Your task to perform on an android device: open app "Yahoo Mail" (install if not already installed) Image 0: 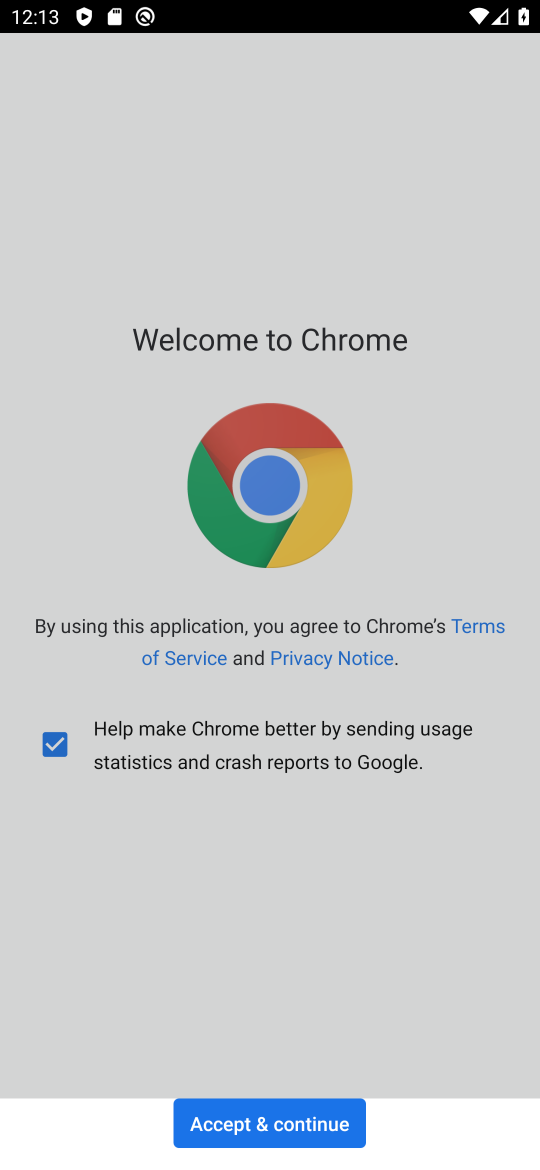
Step 0: press home button
Your task to perform on an android device: open app "Yahoo Mail" (install if not already installed) Image 1: 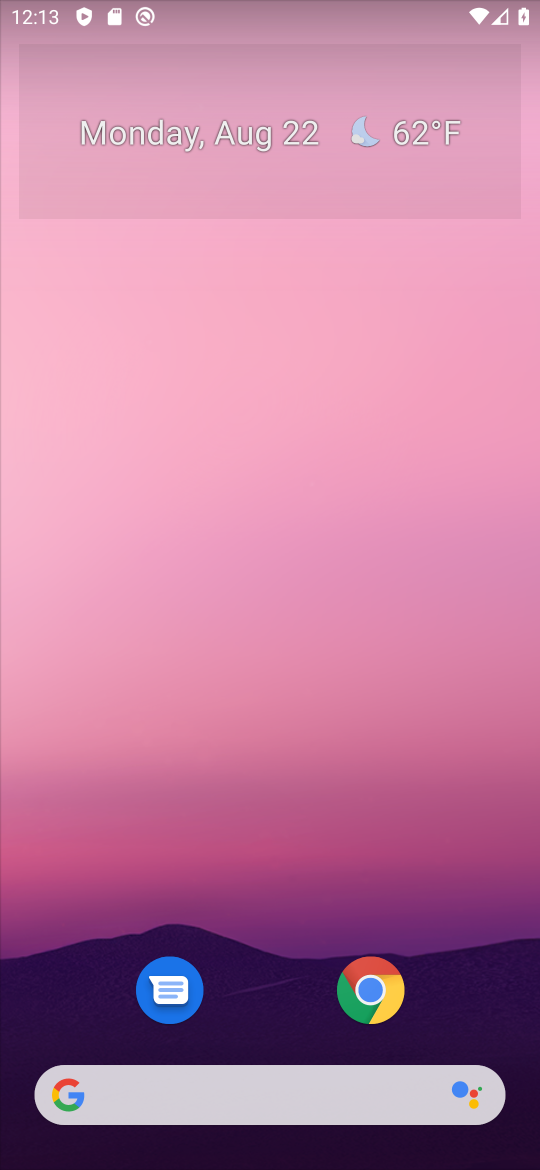
Step 1: drag from (295, 961) to (263, 183)
Your task to perform on an android device: open app "Yahoo Mail" (install if not already installed) Image 2: 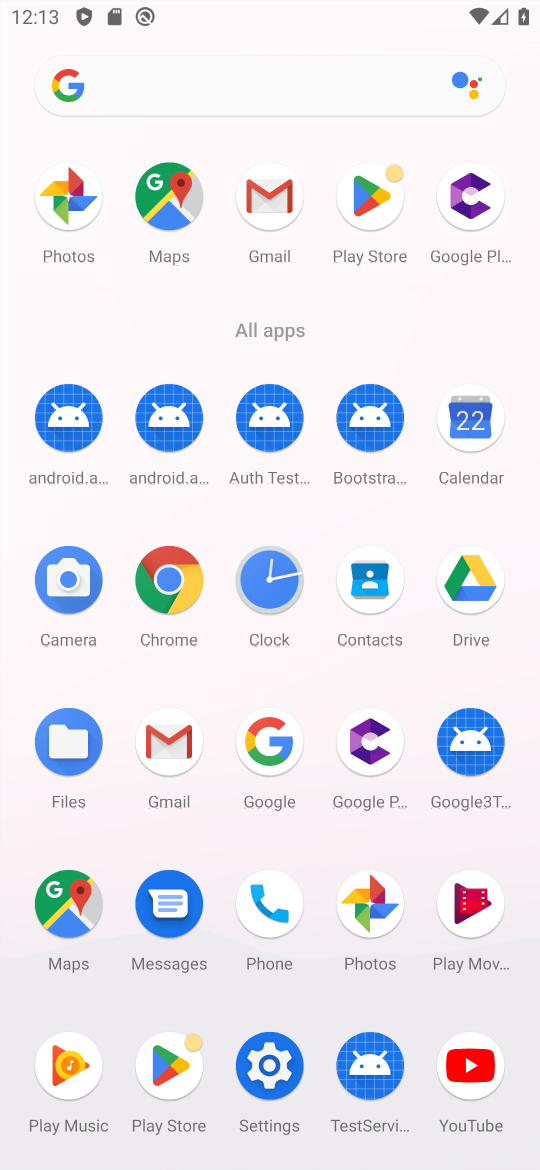
Step 2: click (339, 195)
Your task to perform on an android device: open app "Yahoo Mail" (install if not already installed) Image 3: 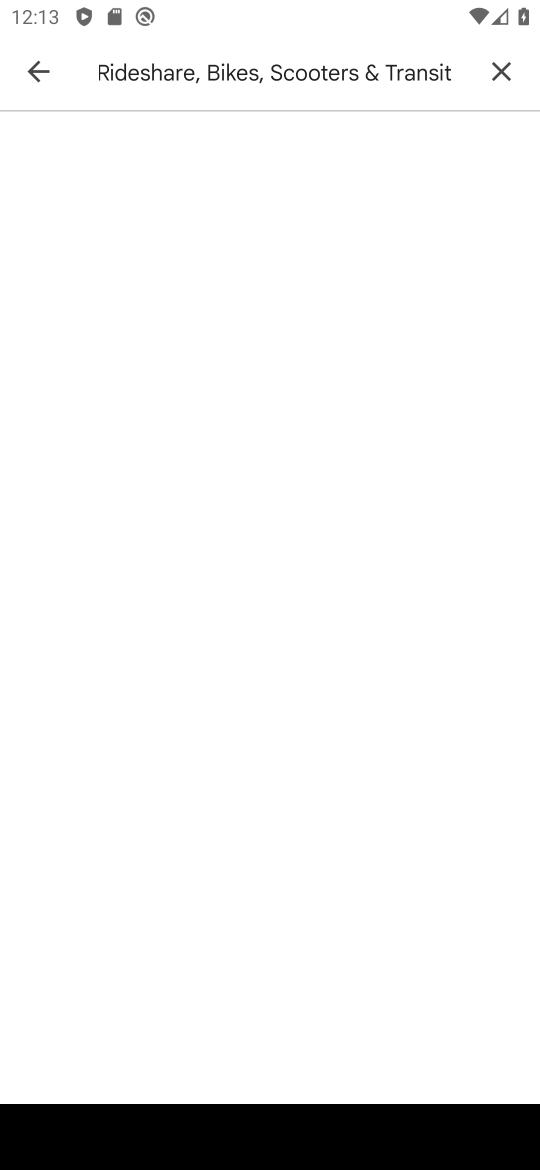
Step 3: click (504, 73)
Your task to perform on an android device: open app "Yahoo Mail" (install if not already installed) Image 4: 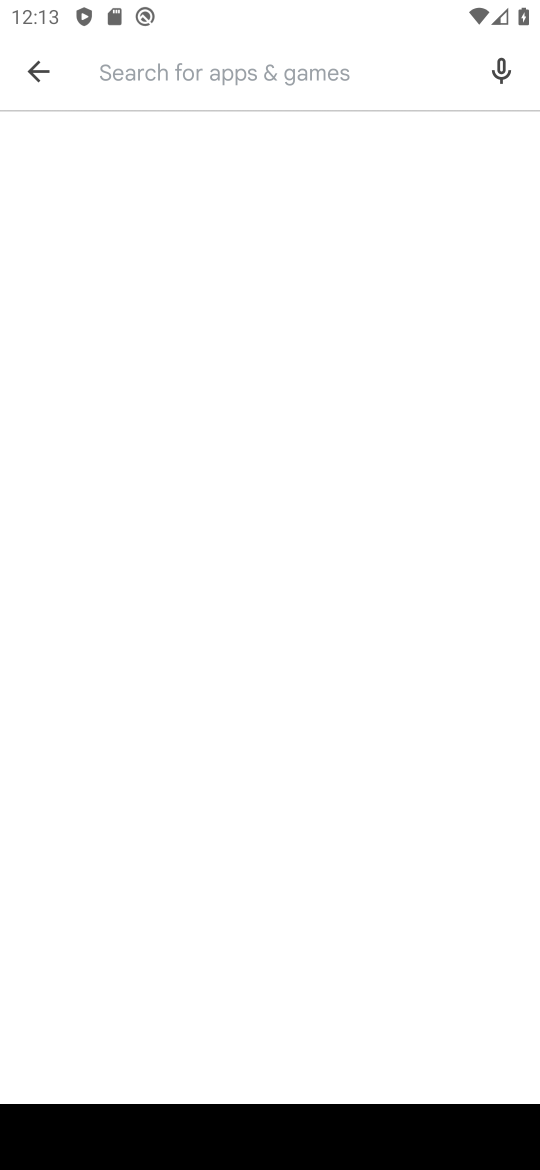
Step 4: click (44, 77)
Your task to perform on an android device: open app "Yahoo Mail" (install if not already installed) Image 5: 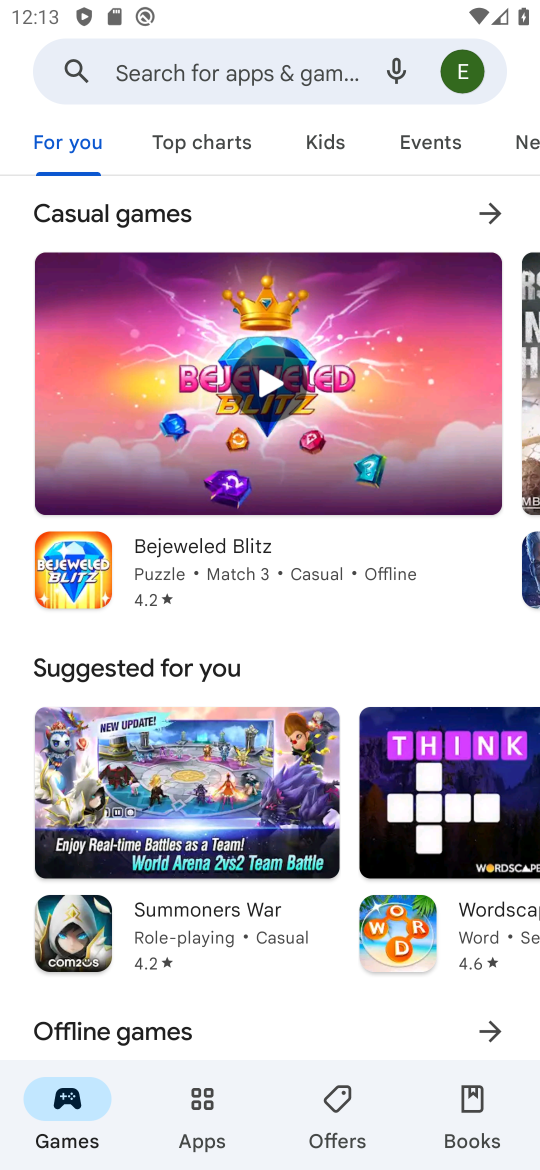
Step 5: click (174, 81)
Your task to perform on an android device: open app "Yahoo Mail" (install if not already installed) Image 6: 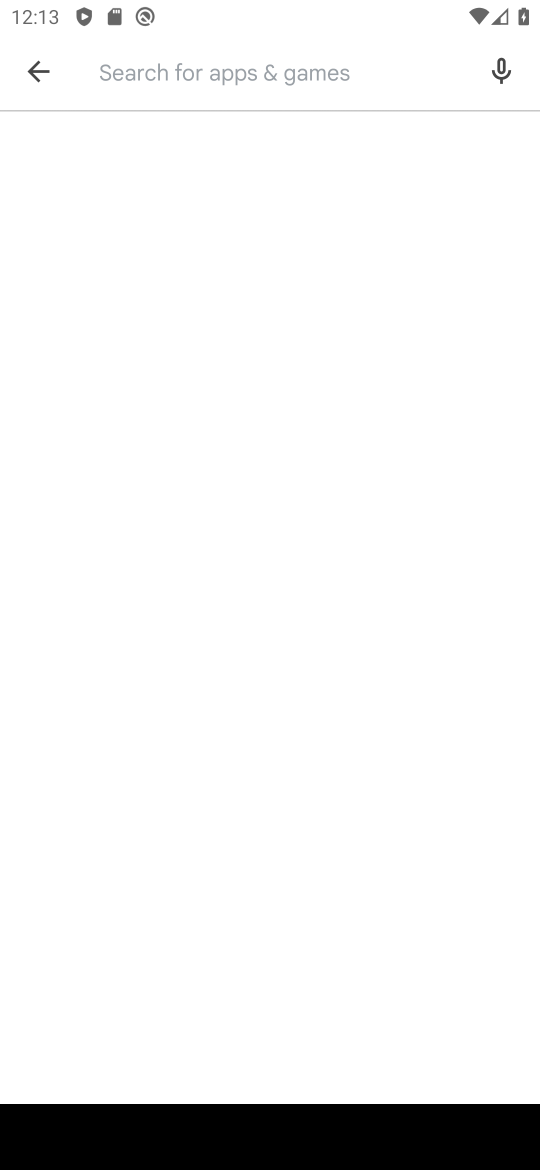
Step 6: type "Yahoo Mail"
Your task to perform on an android device: open app "Yahoo Mail" (install if not already installed) Image 7: 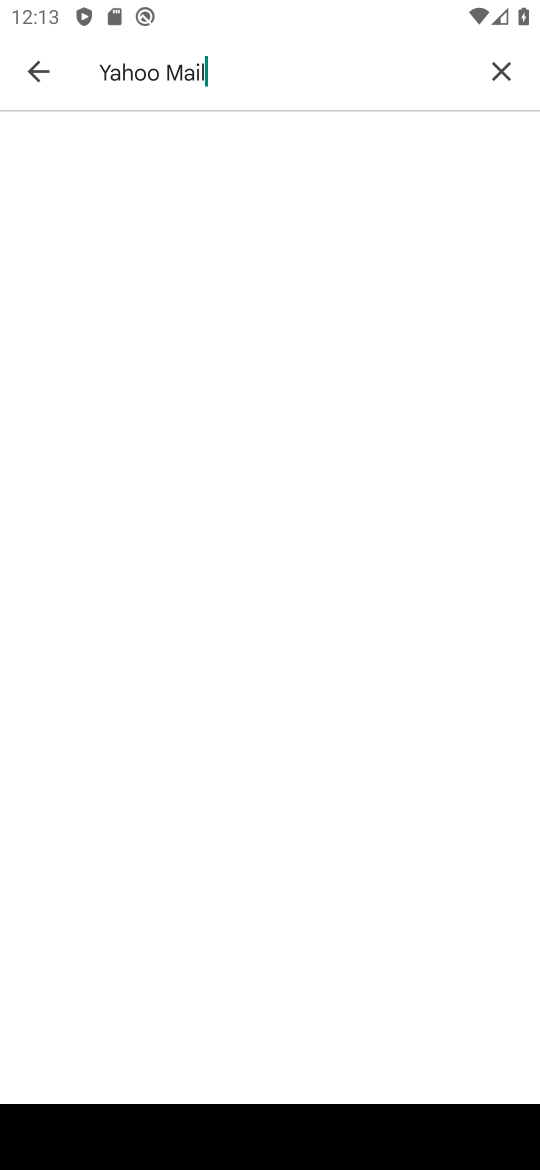
Step 7: type ""
Your task to perform on an android device: open app "Yahoo Mail" (install if not already installed) Image 8: 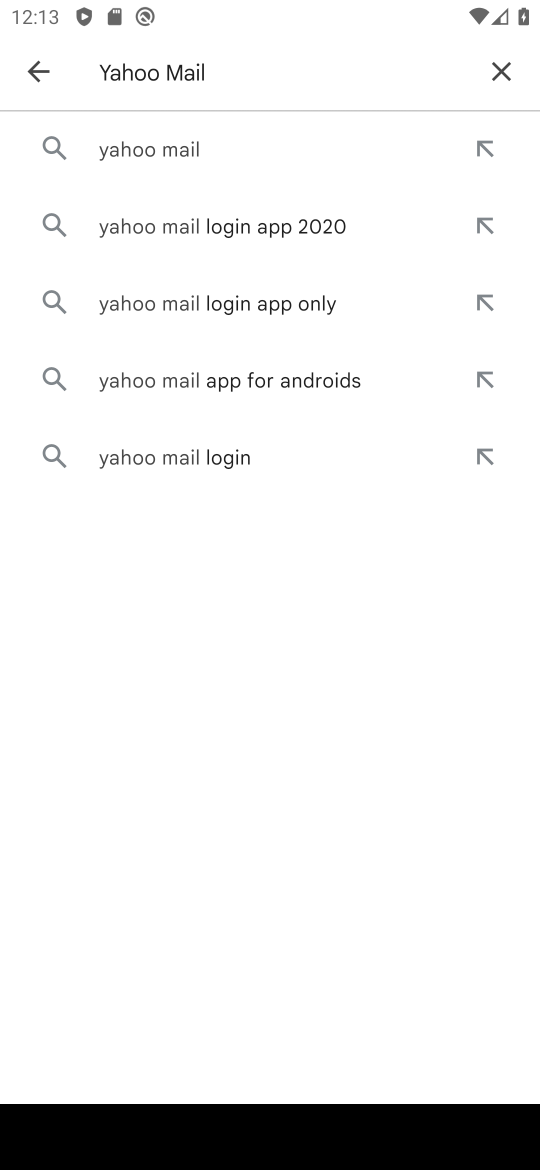
Step 8: click (178, 130)
Your task to perform on an android device: open app "Yahoo Mail" (install if not already installed) Image 9: 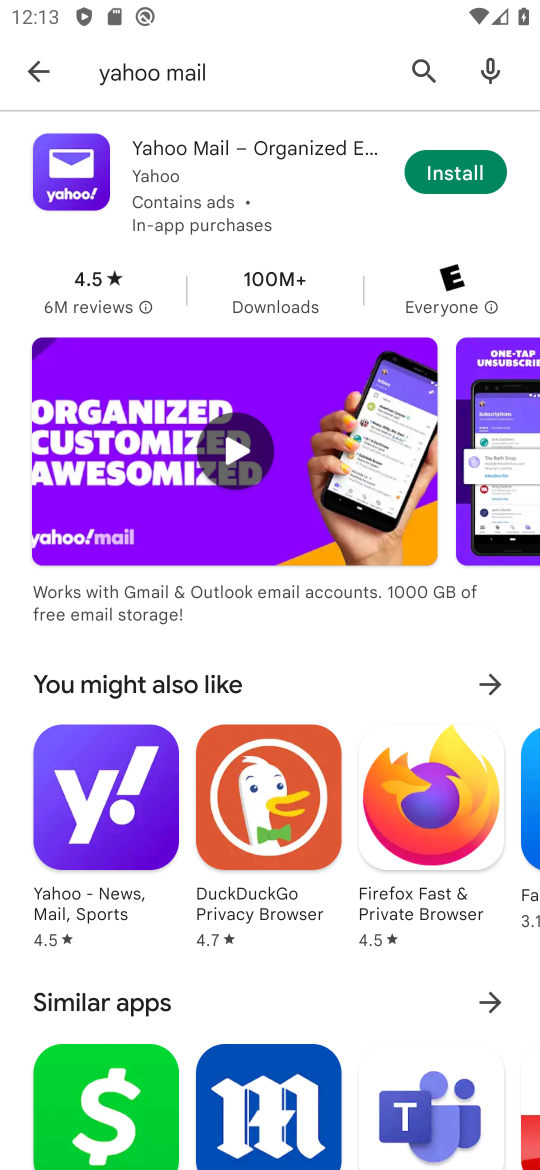
Step 9: click (445, 171)
Your task to perform on an android device: open app "Yahoo Mail" (install if not already installed) Image 10: 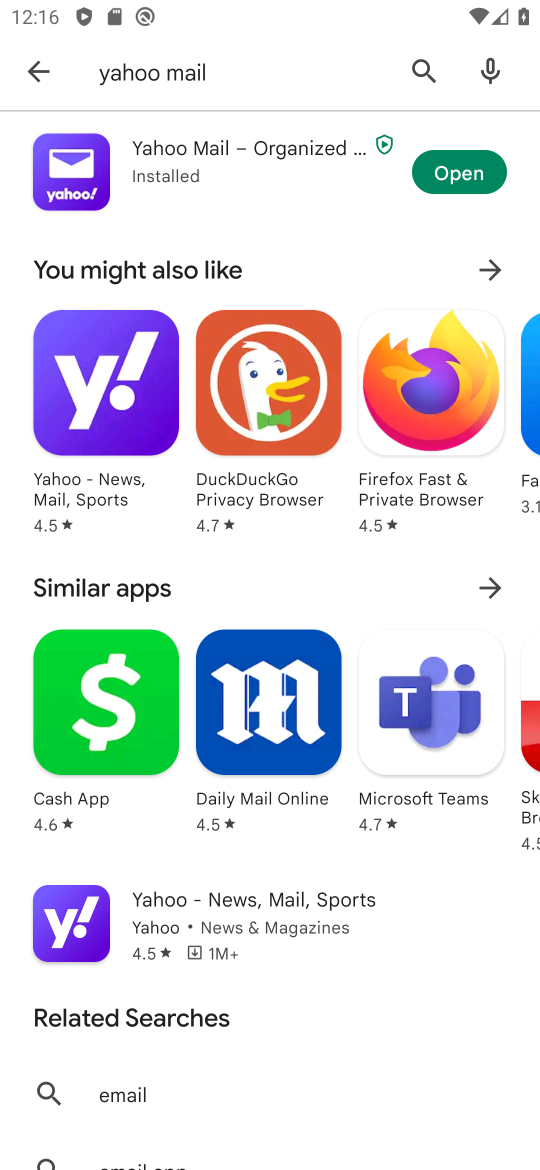
Step 10: click (430, 176)
Your task to perform on an android device: open app "Yahoo Mail" (install if not already installed) Image 11: 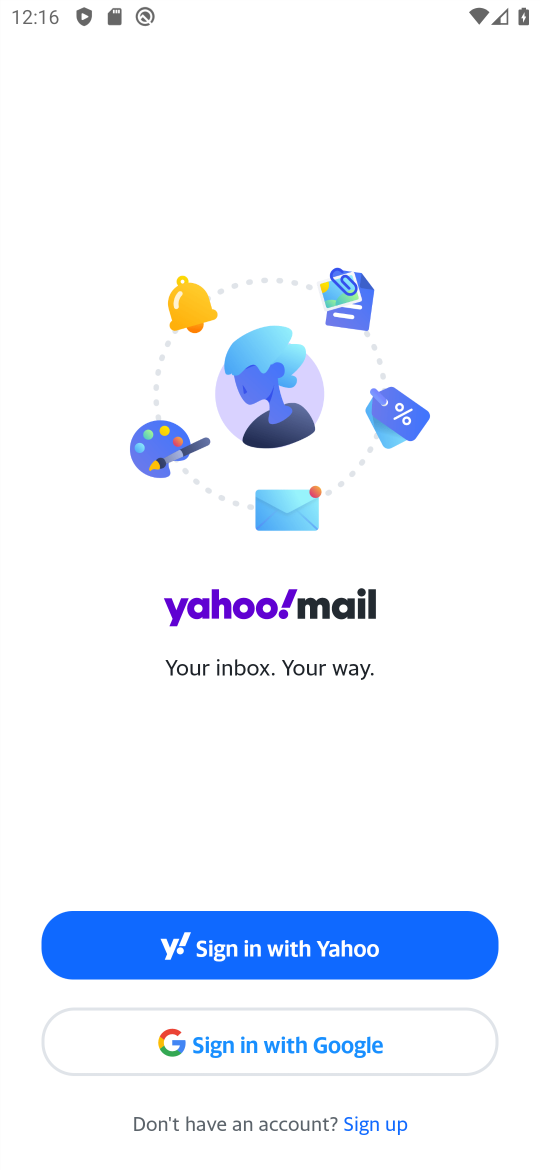
Step 11: task complete